Your task to perform on an android device: Open the Play Movies app and select the watchlist tab. Image 0: 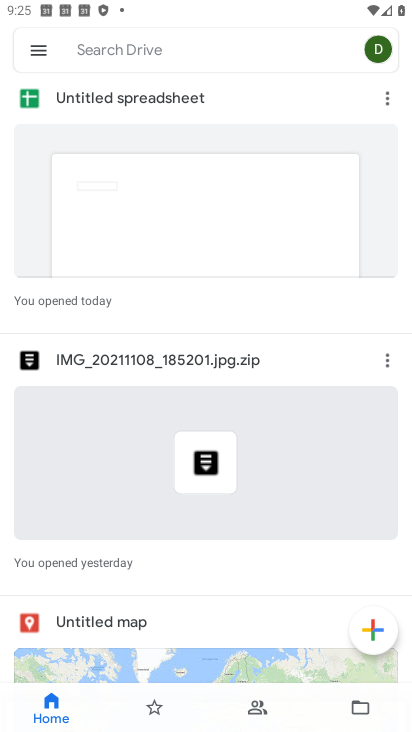
Step 0: press home button
Your task to perform on an android device: Open the Play Movies app and select the watchlist tab. Image 1: 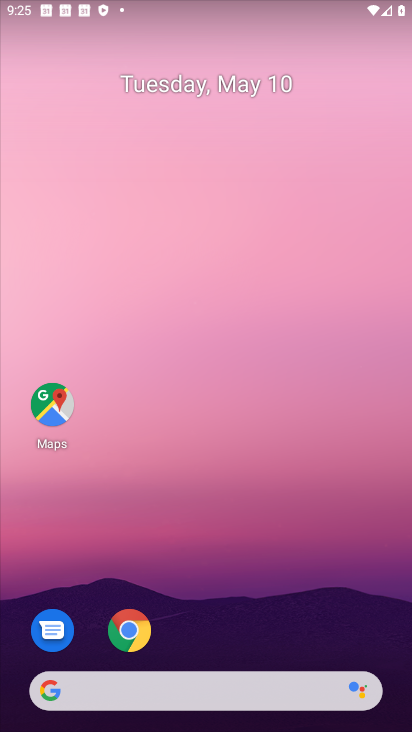
Step 1: drag from (267, 723) to (269, 198)
Your task to perform on an android device: Open the Play Movies app and select the watchlist tab. Image 2: 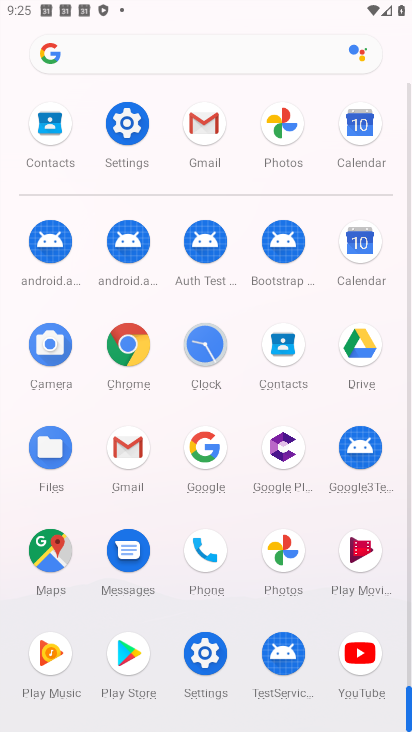
Step 2: click (364, 562)
Your task to perform on an android device: Open the Play Movies app and select the watchlist tab. Image 3: 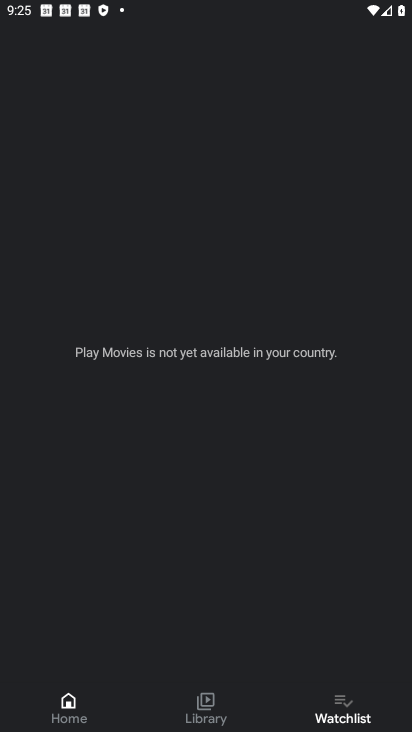
Step 3: click (347, 698)
Your task to perform on an android device: Open the Play Movies app and select the watchlist tab. Image 4: 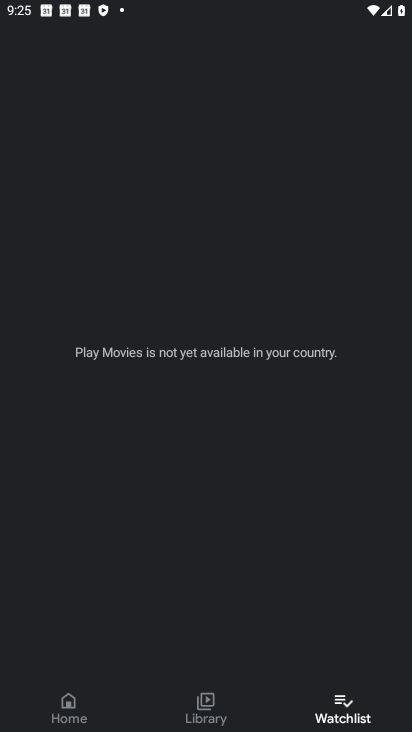
Step 4: task complete